Your task to perform on an android device: Turn on the flashlight Image 0: 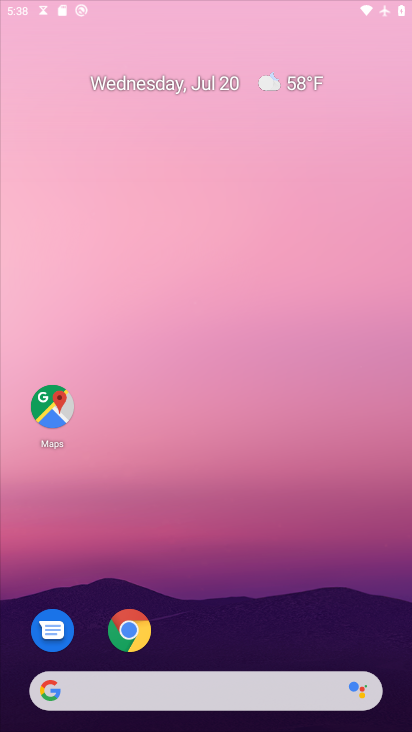
Step 0: press home button
Your task to perform on an android device: Turn on the flashlight Image 1: 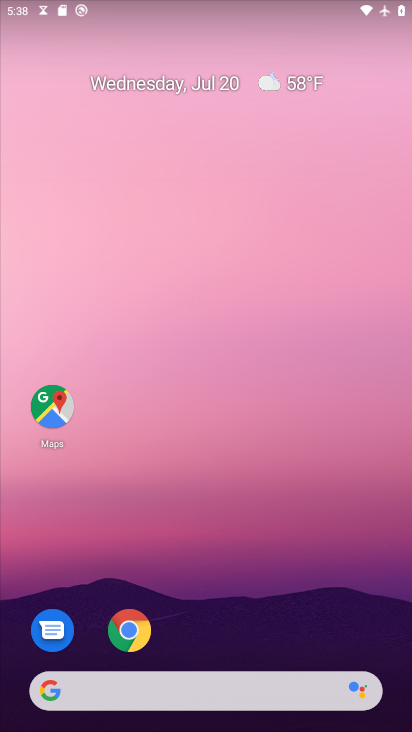
Step 1: task complete